Your task to perform on an android device: Is it going to rain this weekend? Image 0: 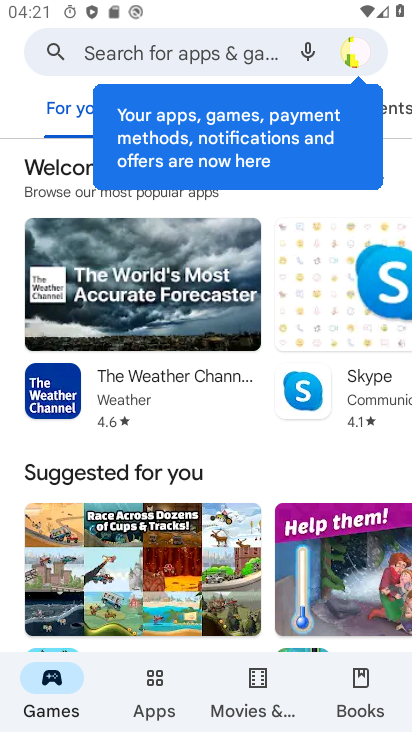
Step 0: press home button
Your task to perform on an android device: Is it going to rain this weekend? Image 1: 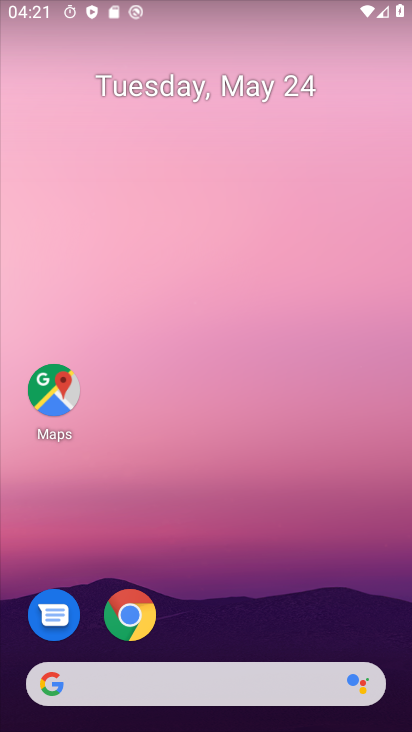
Step 1: click (164, 671)
Your task to perform on an android device: Is it going to rain this weekend? Image 2: 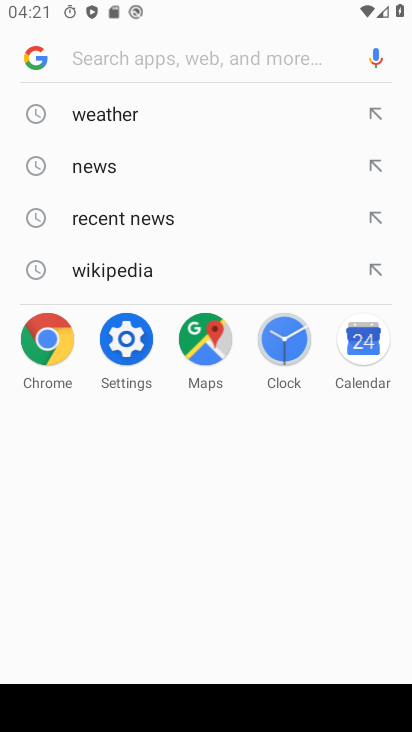
Step 2: click (83, 106)
Your task to perform on an android device: Is it going to rain this weekend? Image 3: 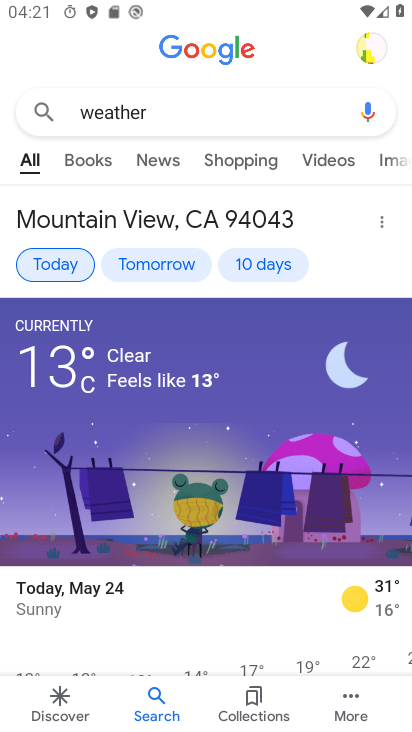
Step 3: click (262, 252)
Your task to perform on an android device: Is it going to rain this weekend? Image 4: 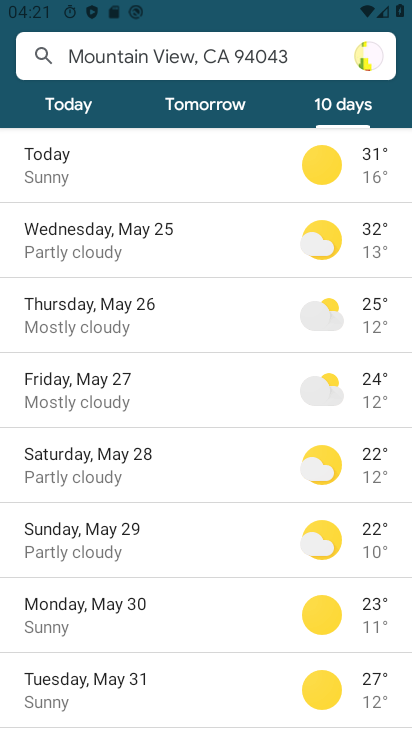
Step 4: task complete